Your task to perform on an android device: allow notifications from all sites in the chrome app Image 0: 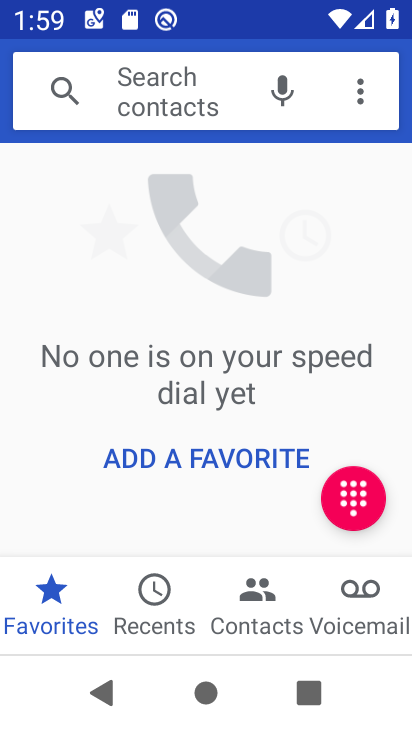
Step 0: press home button
Your task to perform on an android device: allow notifications from all sites in the chrome app Image 1: 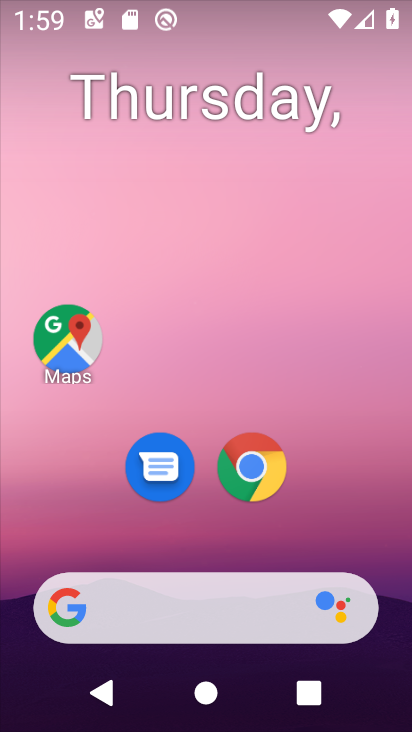
Step 1: click (244, 484)
Your task to perform on an android device: allow notifications from all sites in the chrome app Image 2: 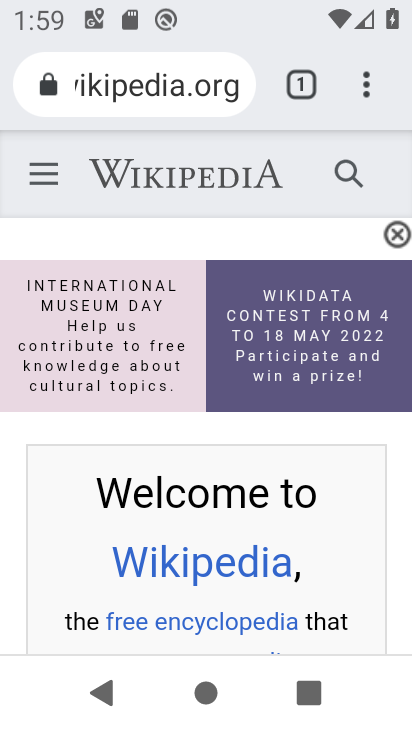
Step 2: click (363, 93)
Your task to perform on an android device: allow notifications from all sites in the chrome app Image 3: 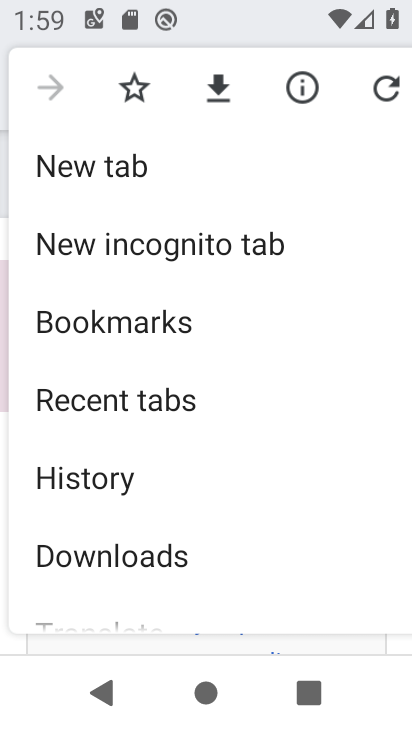
Step 3: drag from (214, 528) to (189, 86)
Your task to perform on an android device: allow notifications from all sites in the chrome app Image 4: 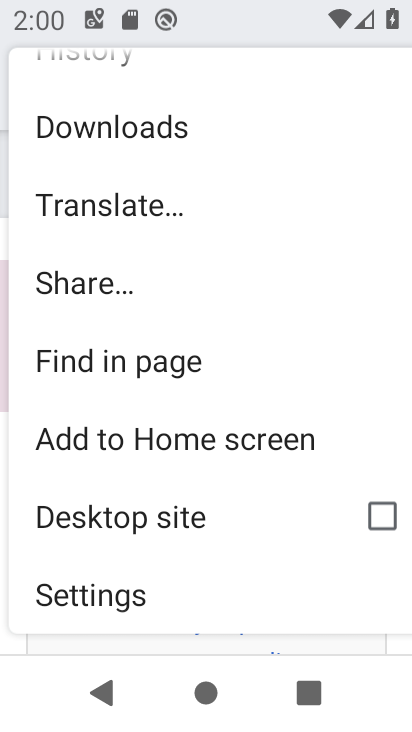
Step 4: click (138, 595)
Your task to perform on an android device: allow notifications from all sites in the chrome app Image 5: 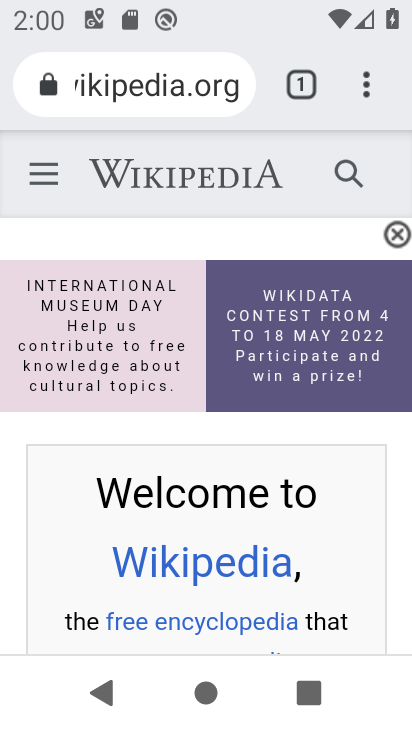
Step 5: drag from (138, 595) to (75, 67)
Your task to perform on an android device: allow notifications from all sites in the chrome app Image 6: 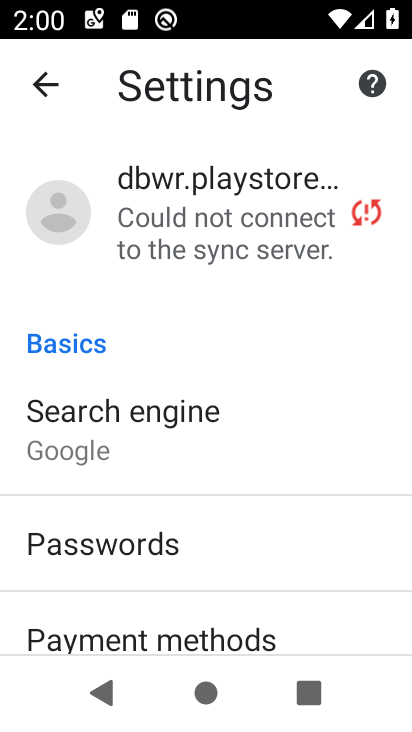
Step 6: drag from (132, 568) to (127, 137)
Your task to perform on an android device: allow notifications from all sites in the chrome app Image 7: 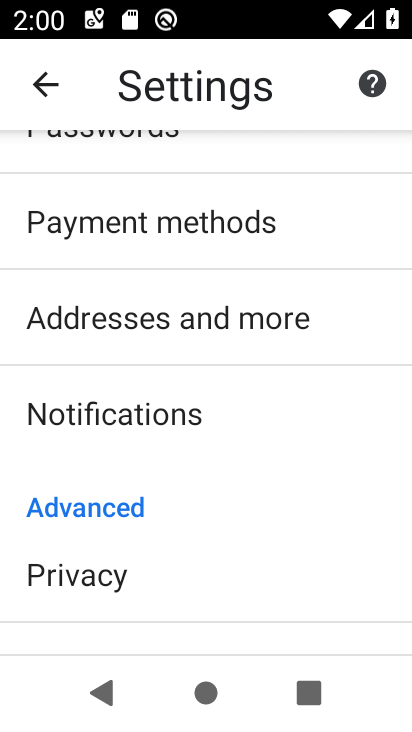
Step 7: drag from (154, 581) to (141, 185)
Your task to perform on an android device: allow notifications from all sites in the chrome app Image 8: 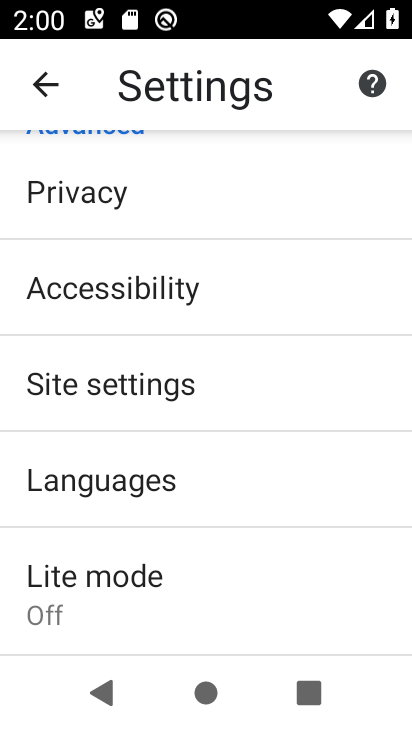
Step 8: click (148, 384)
Your task to perform on an android device: allow notifications from all sites in the chrome app Image 9: 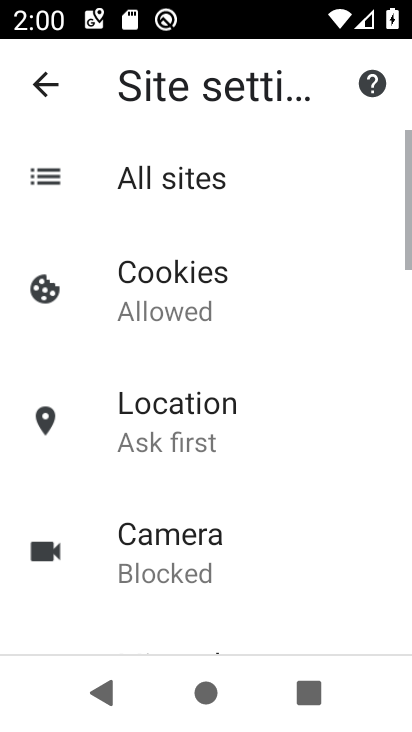
Step 9: drag from (193, 590) to (146, 142)
Your task to perform on an android device: allow notifications from all sites in the chrome app Image 10: 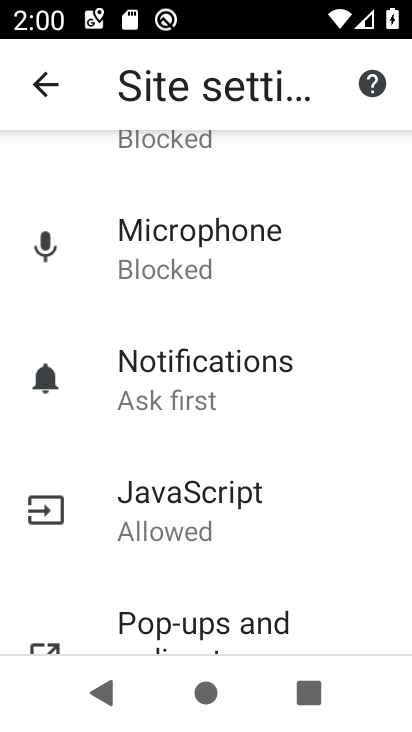
Step 10: click (180, 404)
Your task to perform on an android device: allow notifications from all sites in the chrome app Image 11: 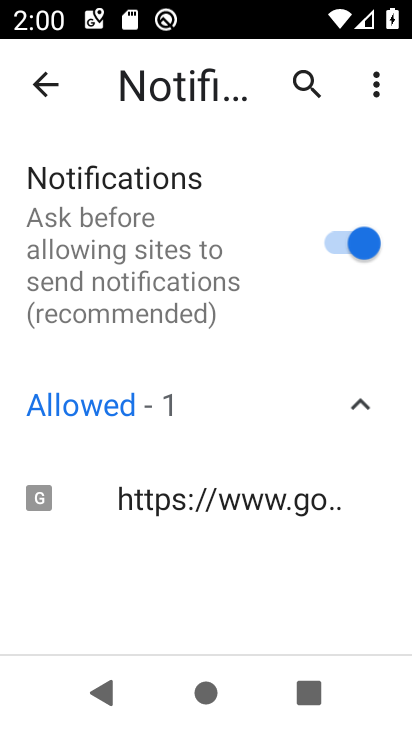
Step 11: task complete